Your task to perform on an android device: change timer sound Image 0: 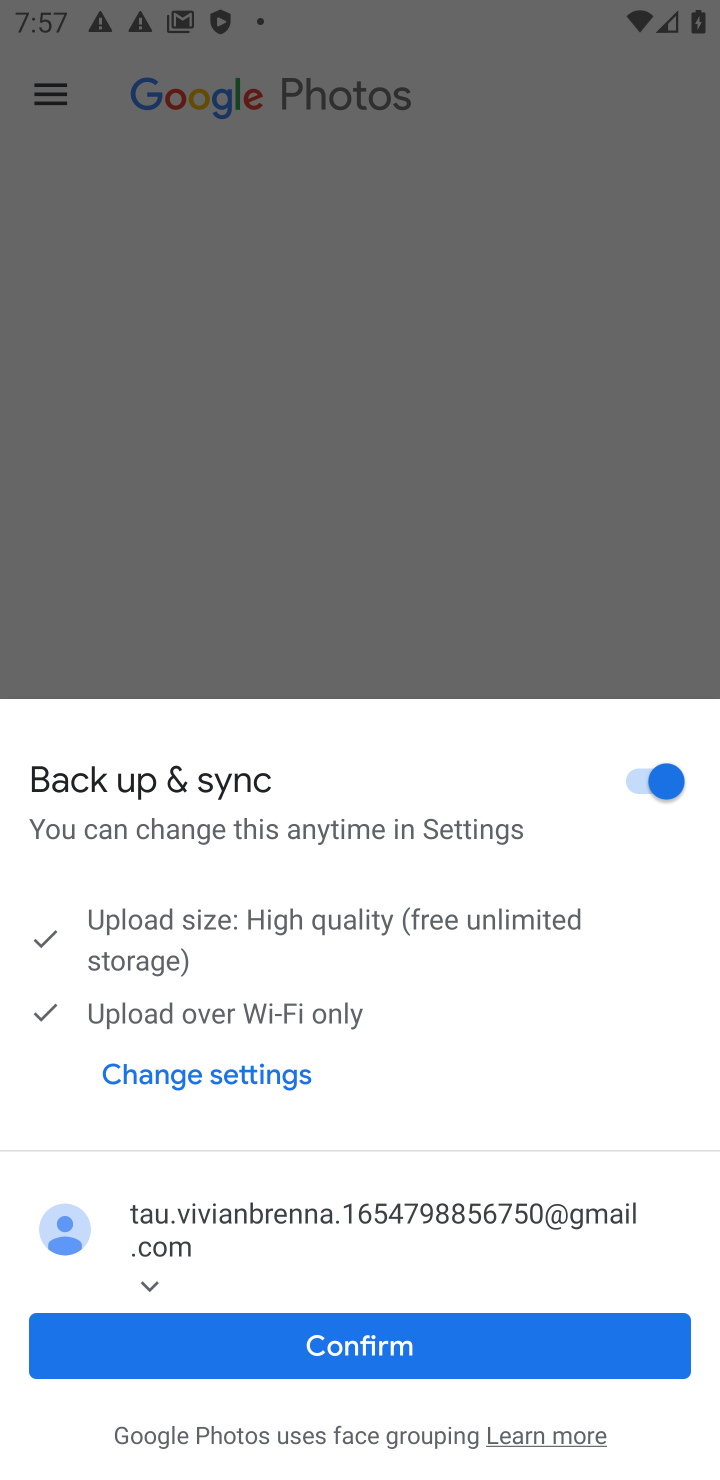
Step 0: press home button
Your task to perform on an android device: change timer sound Image 1: 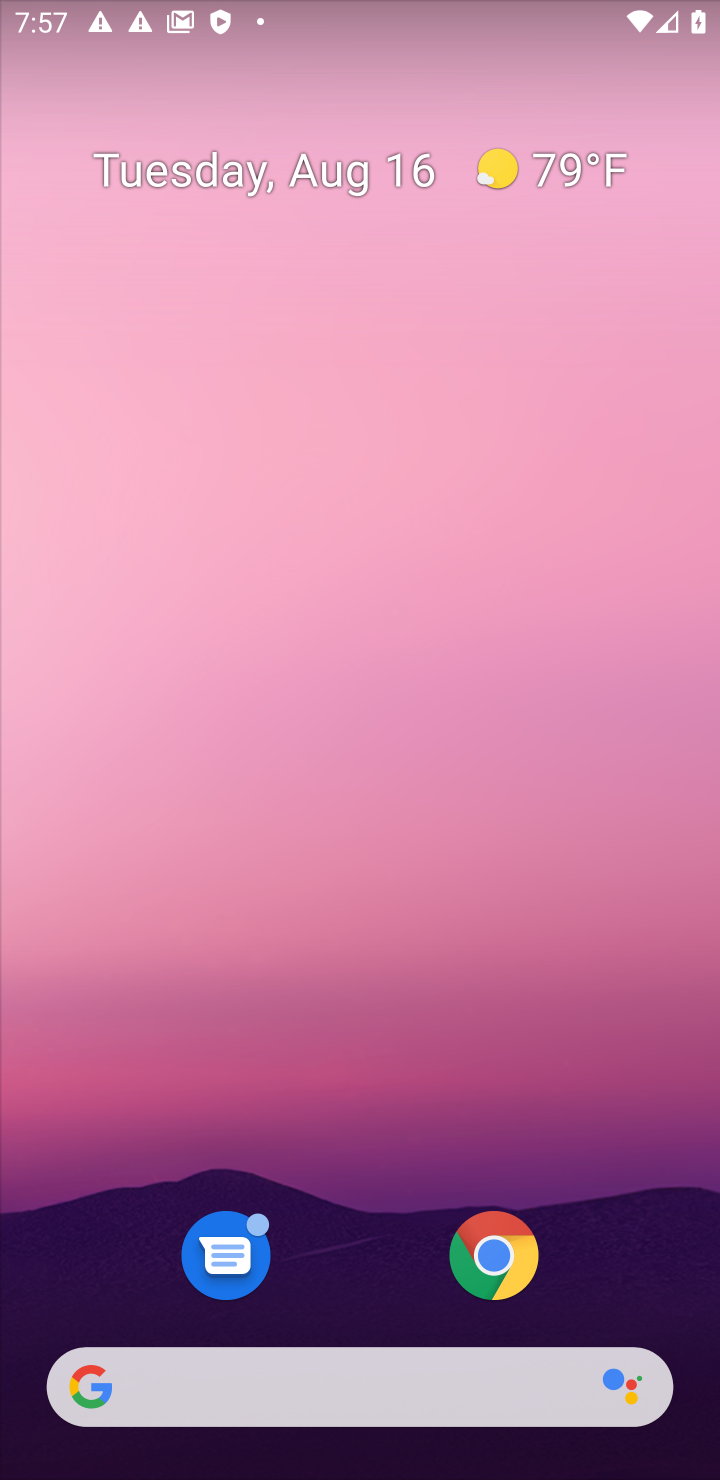
Step 1: drag from (372, 1371) to (360, 222)
Your task to perform on an android device: change timer sound Image 2: 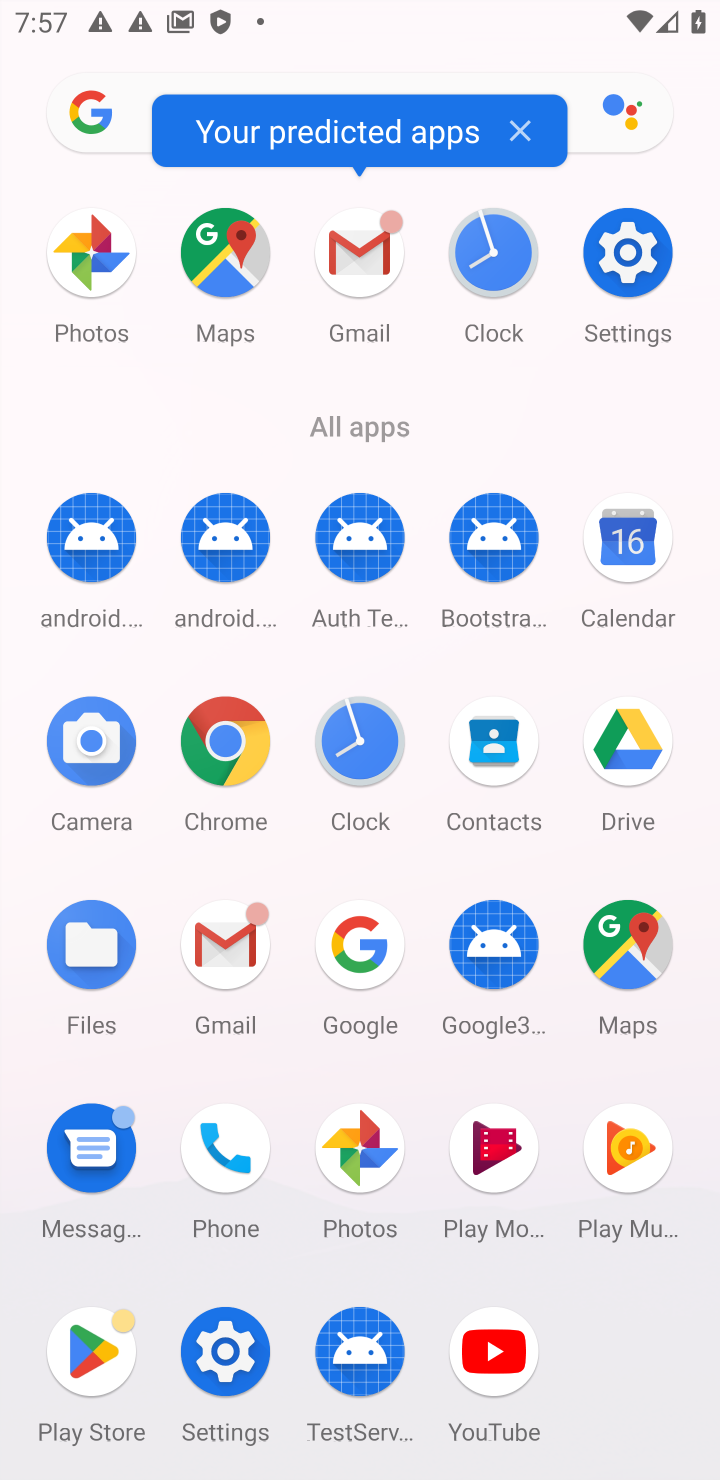
Step 2: click (353, 768)
Your task to perform on an android device: change timer sound Image 3: 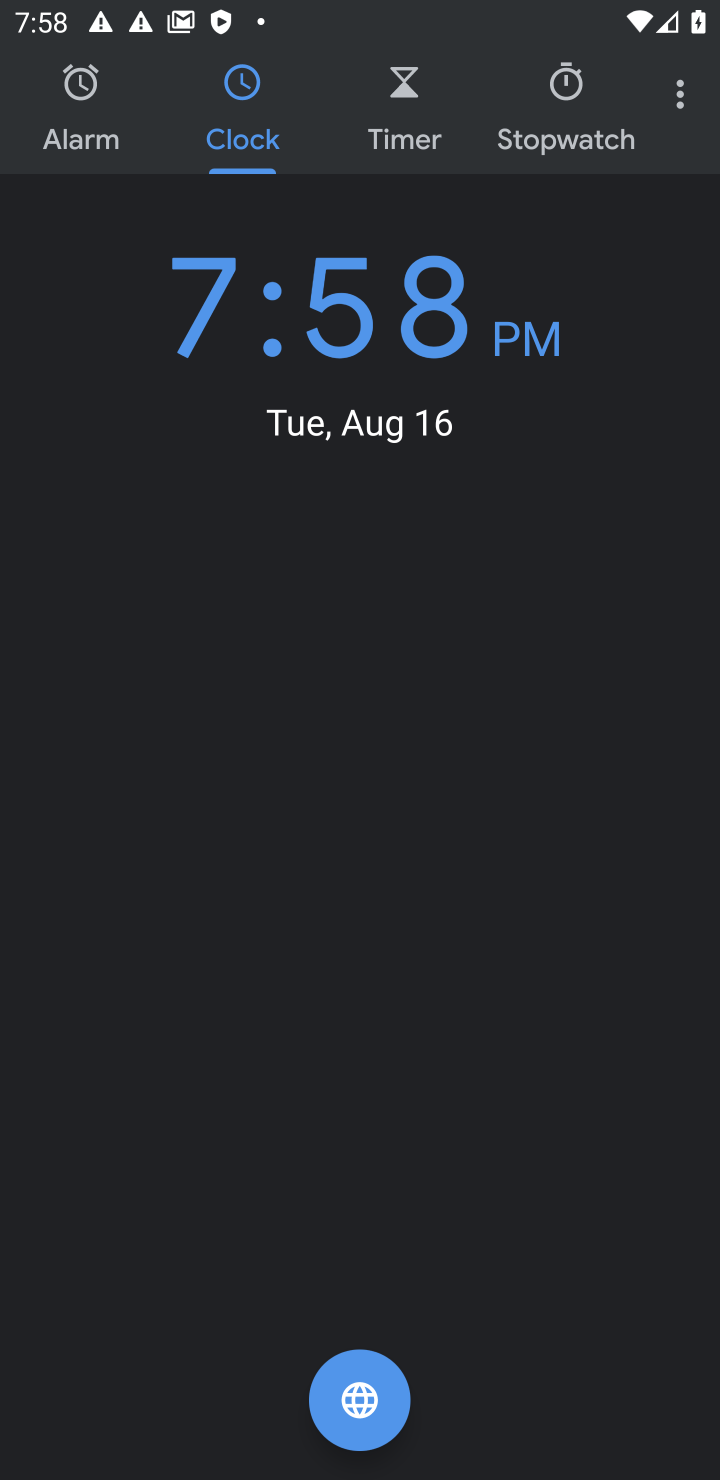
Step 3: click (688, 103)
Your task to perform on an android device: change timer sound Image 4: 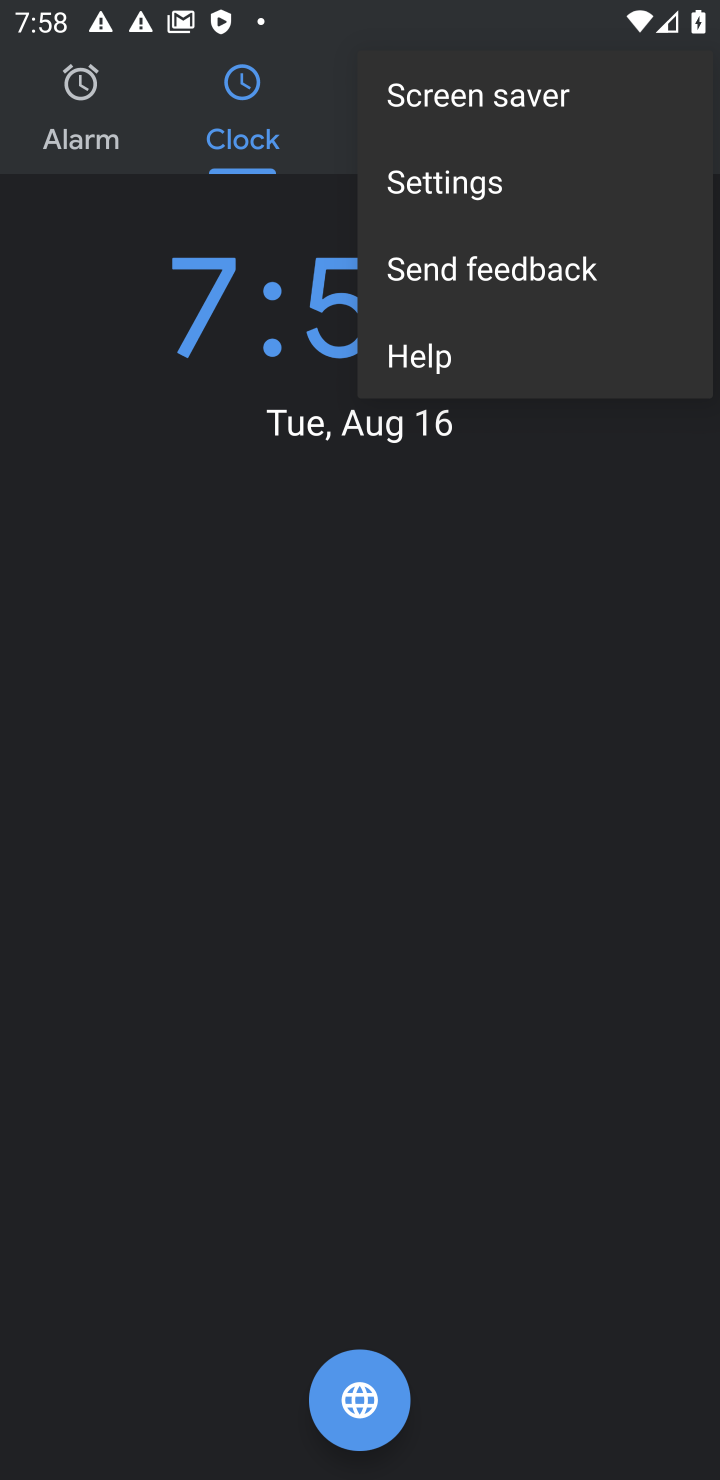
Step 4: click (496, 176)
Your task to perform on an android device: change timer sound Image 5: 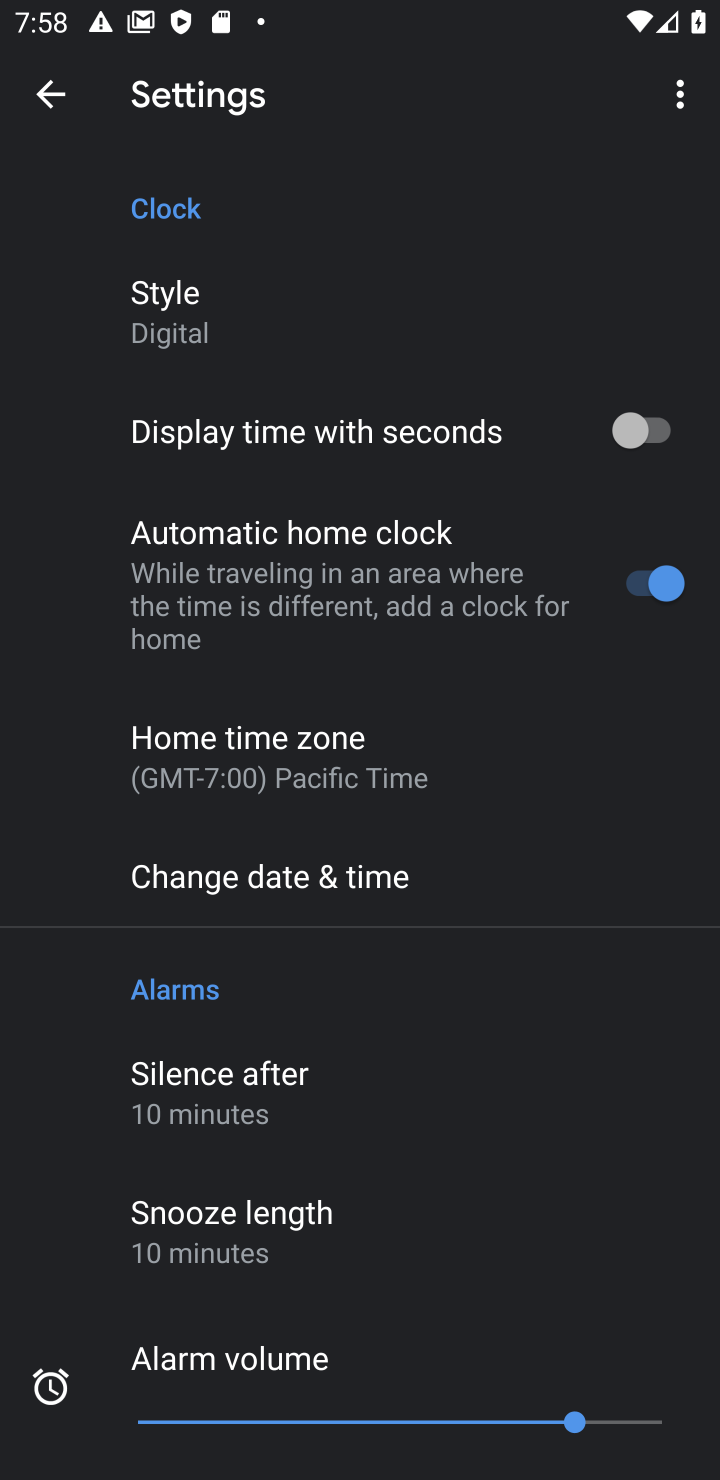
Step 5: drag from (387, 1289) to (306, 341)
Your task to perform on an android device: change timer sound Image 6: 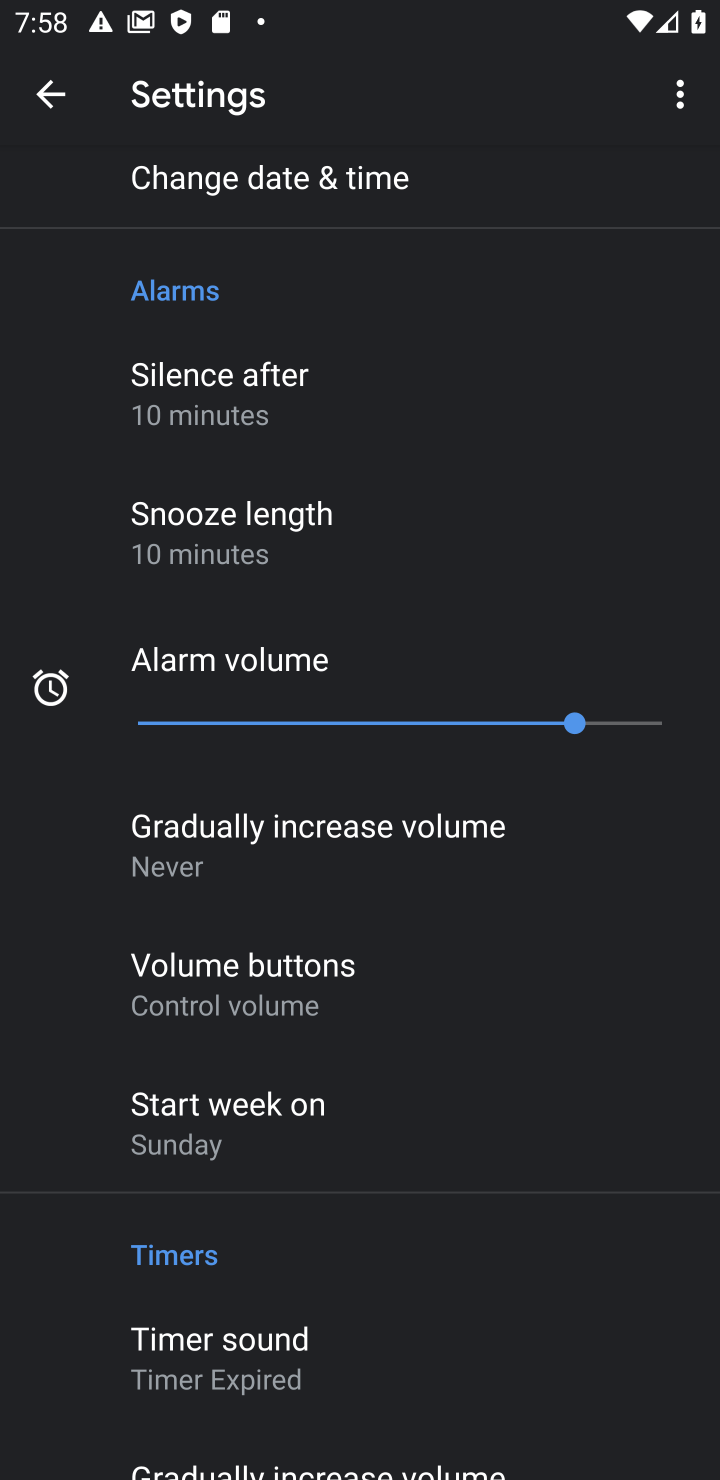
Step 6: click (284, 1355)
Your task to perform on an android device: change timer sound Image 7: 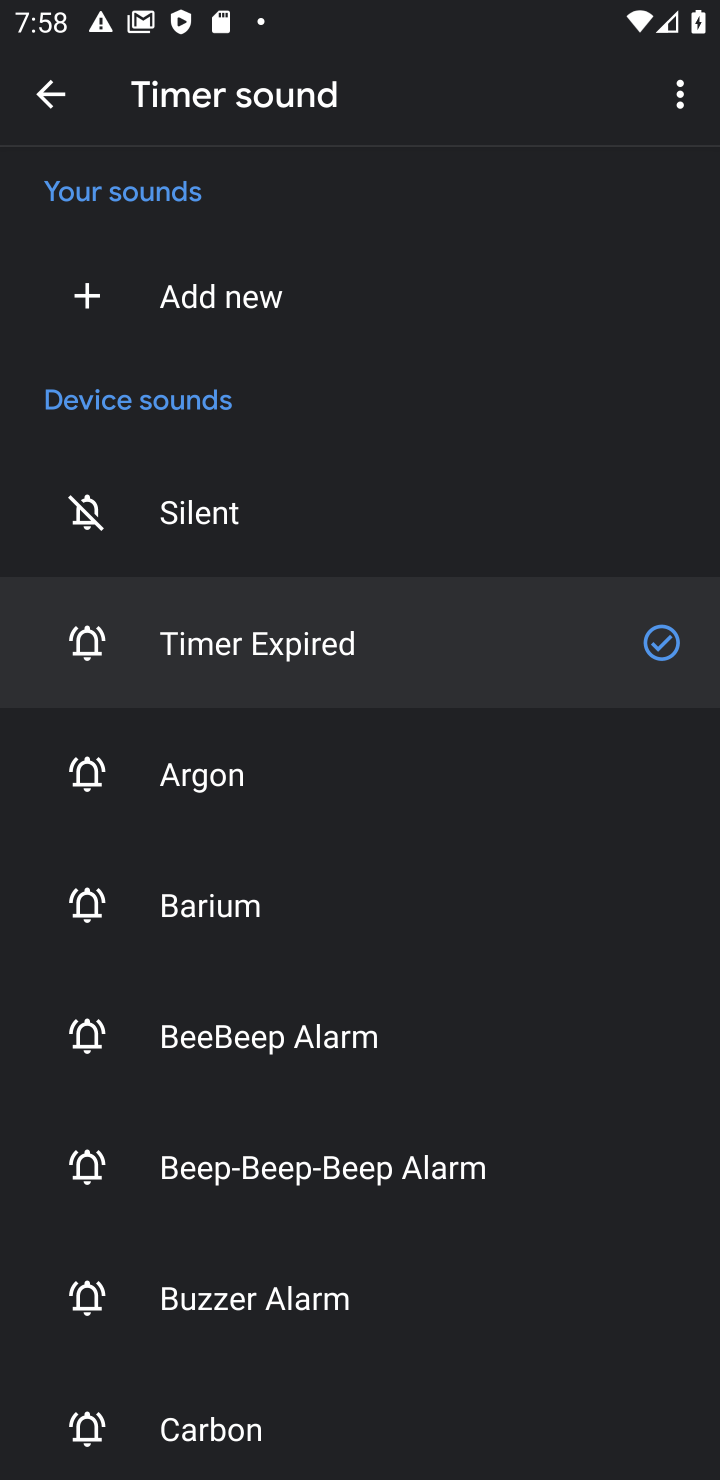
Step 7: click (270, 1404)
Your task to perform on an android device: change timer sound Image 8: 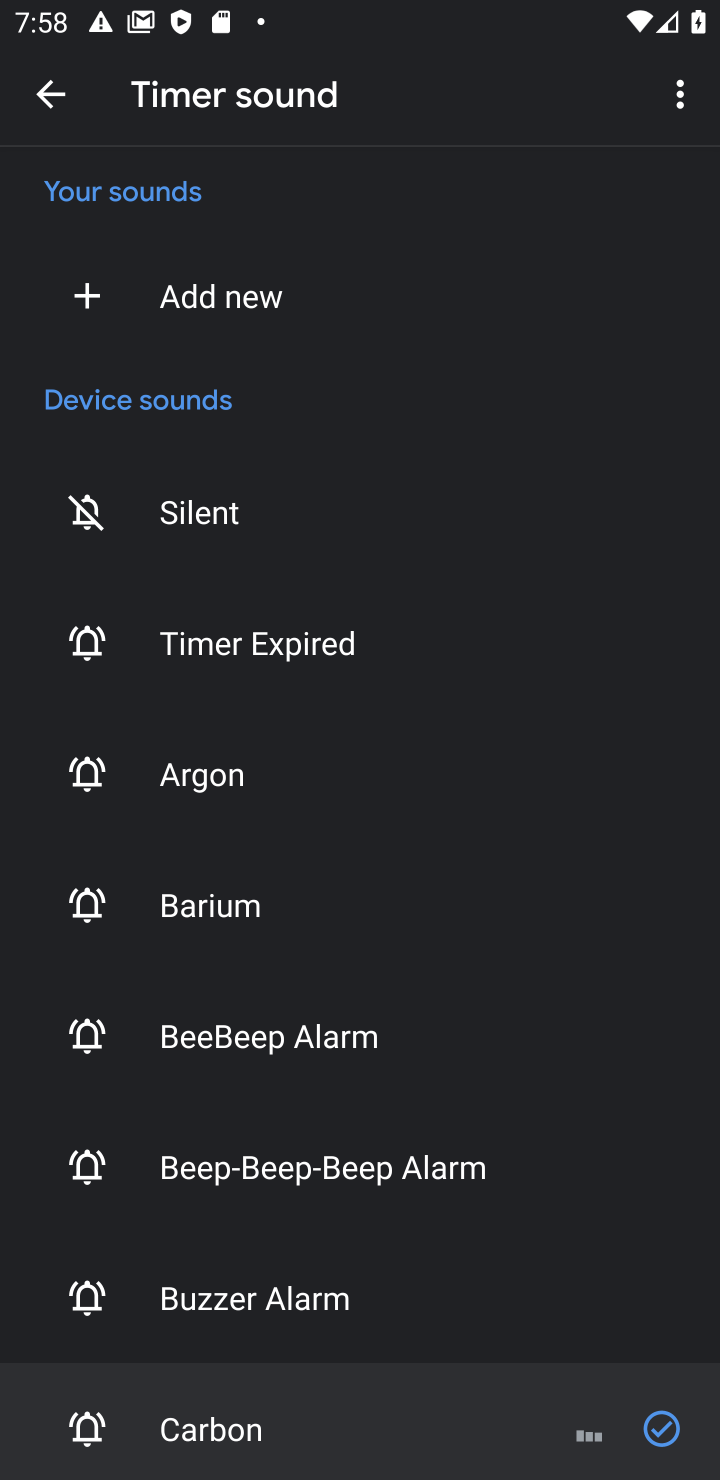
Step 8: task complete